Your task to perform on an android device: manage bookmarks in the chrome app Image 0: 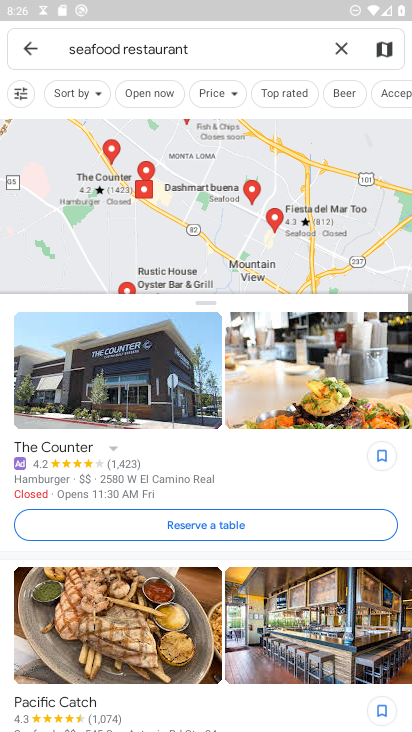
Step 0: press home button
Your task to perform on an android device: manage bookmarks in the chrome app Image 1: 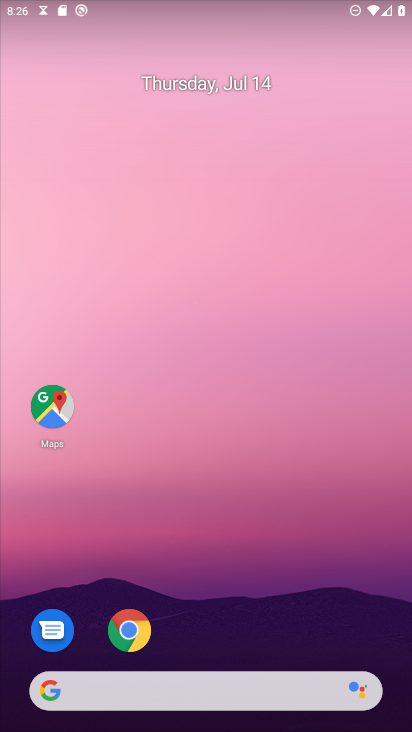
Step 1: click (128, 639)
Your task to perform on an android device: manage bookmarks in the chrome app Image 2: 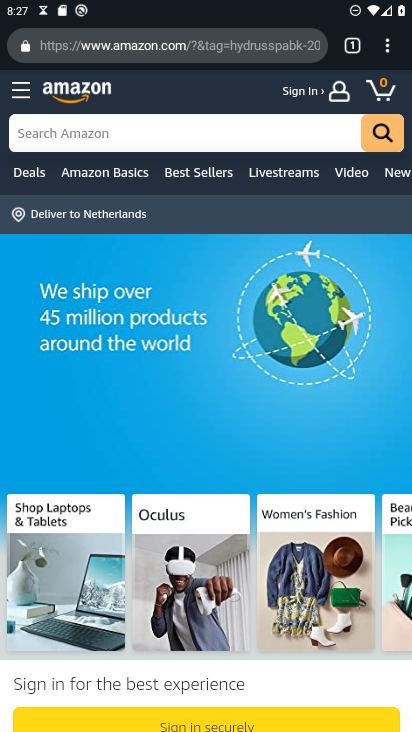
Step 2: click (383, 44)
Your task to perform on an android device: manage bookmarks in the chrome app Image 3: 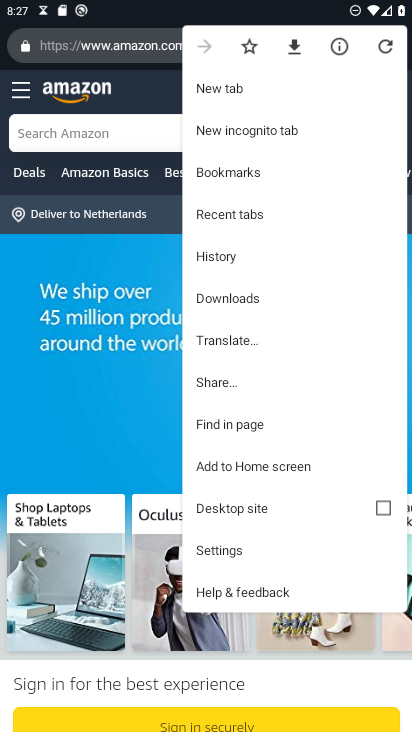
Step 3: click (271, 182)
Your task to perform on an android device: manage bookmarks in the chrome app Image 4: 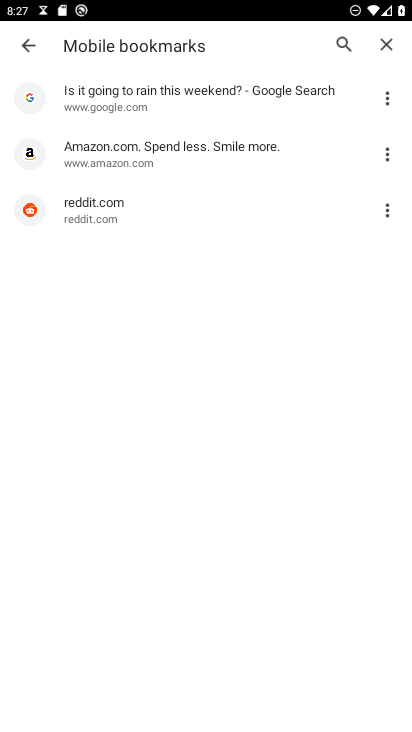
Step 4: click (386, 213)
Your task to perform on an android device: manage bookmarks in the chrome app Image 5: 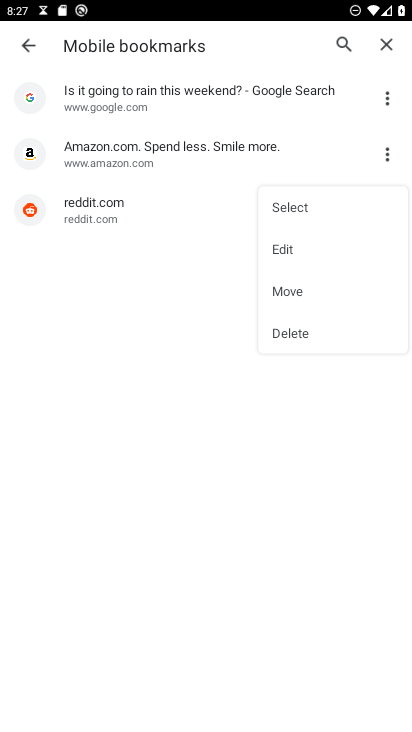
Step 5: click (311, 336)
Your task to perform on an android device: manage bookmarks in the chrome app Image 6: 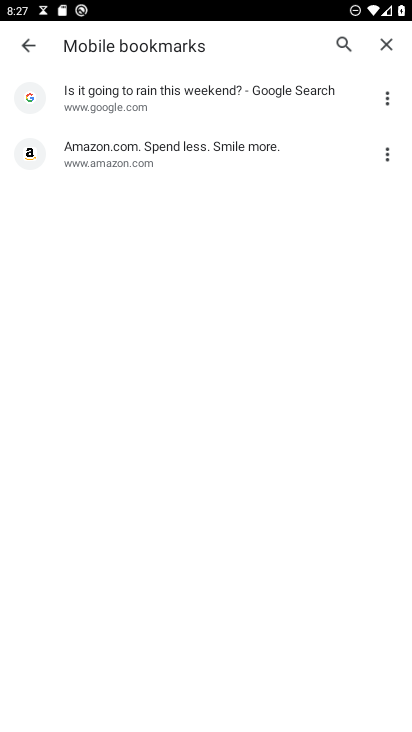
Step 6: task complete